Your task to perform on an android device: Open Google Maps Image 0: 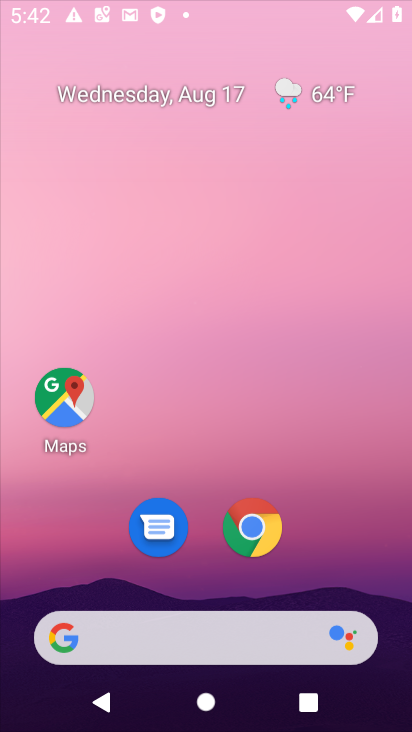
Step 0: click (168, 72)
Your task to perform on an android device: Open Google Maps Image 1: 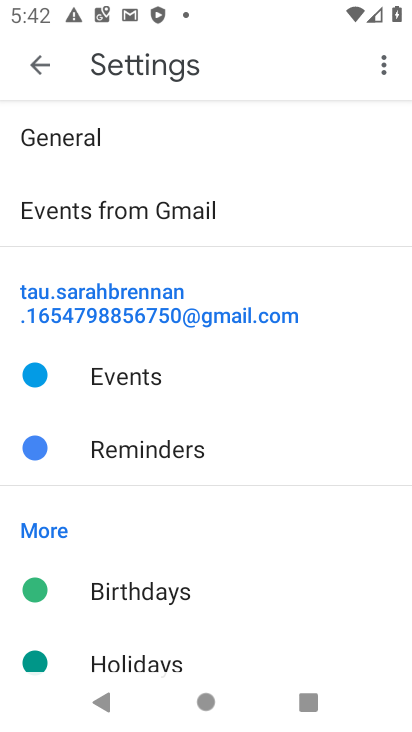
Step 1: press home button
Your task to perform on an android device: Open Google Maps Image 2: 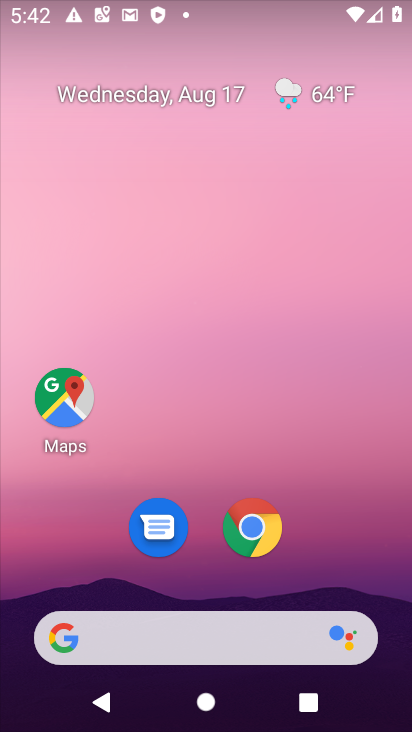
Step 2: click (61, 392)
Your task to perform on an android device: Open Google Maps Image 3: 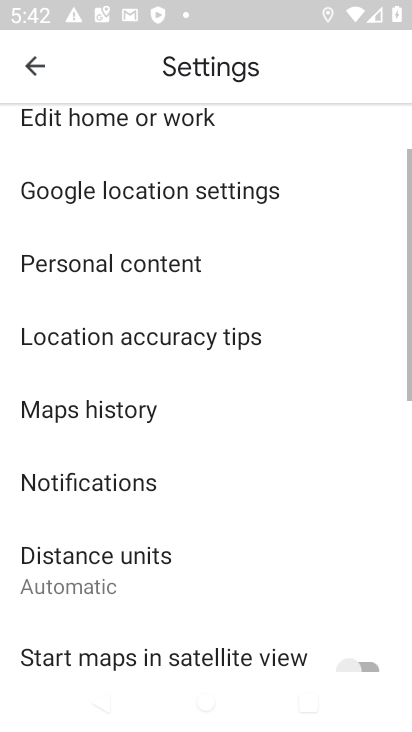
Step 3: click (35, 60)
Your task to perform on an android device: Open Google Maps Image 4: 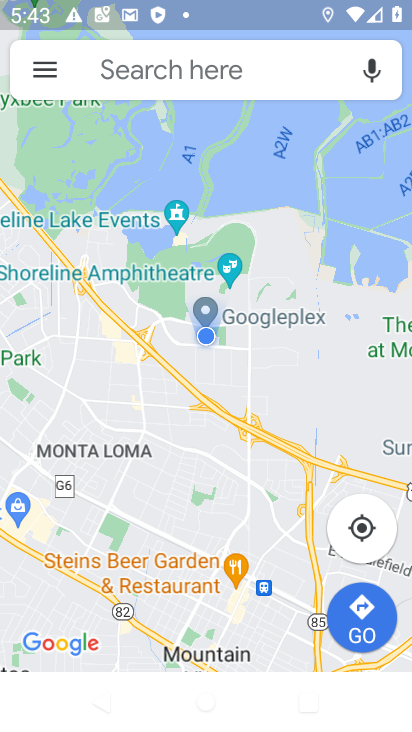
Step 4: task complete